Your task to perform on an android device: Check the weather Image 0: 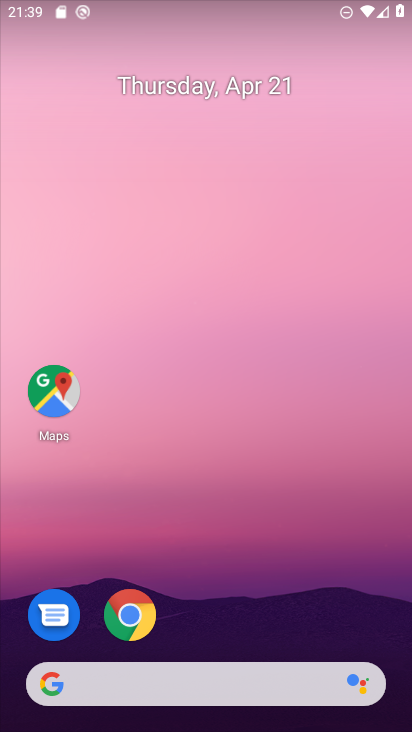
Step 0: drag from (188, 455) to (186, 194)
Your task to perform on an android device: Check the weather Image 1: 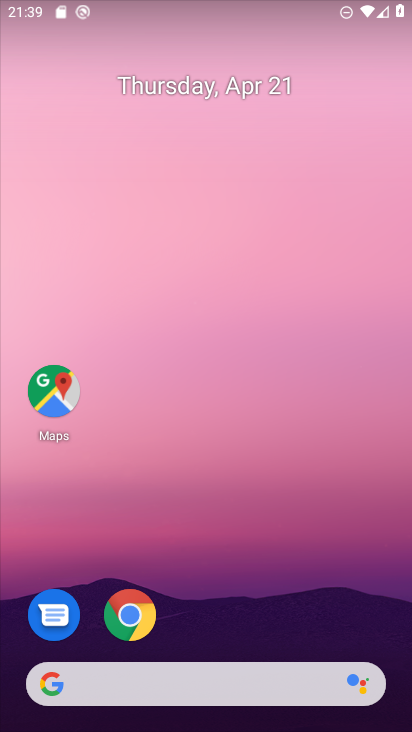
Step 1: drag from (216, 601) to (226, 152)
Your task to perform on an android device: Check the weather Image 2: 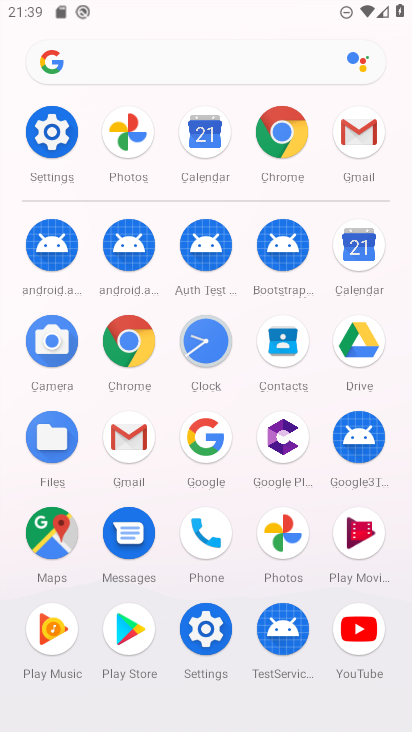
Step 2: click (130, 345)
Your task to perform on an android device: Check the weather Image 3: 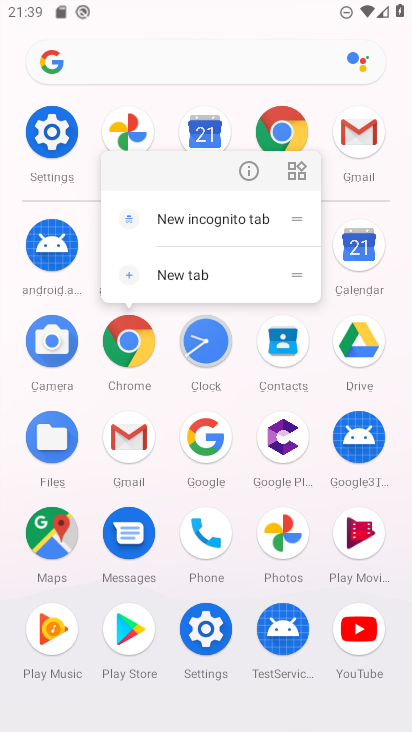
Step 3: click (253, 170)
Your task to perform on an android device: Check the weather Image 4: 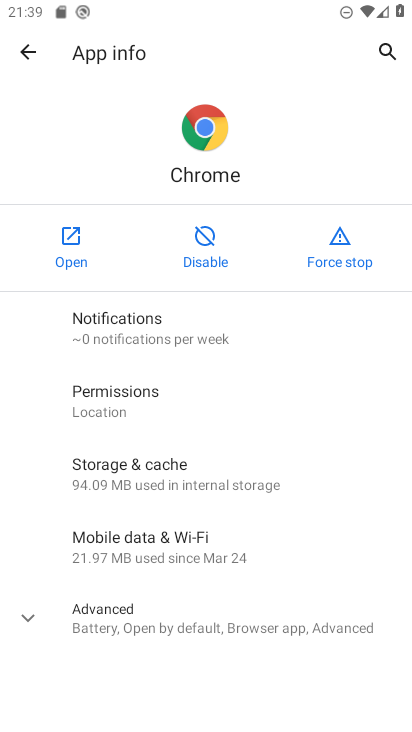
Step 4: click (58, 232)
Your task to perform on an android device: Check the weather Image 5: 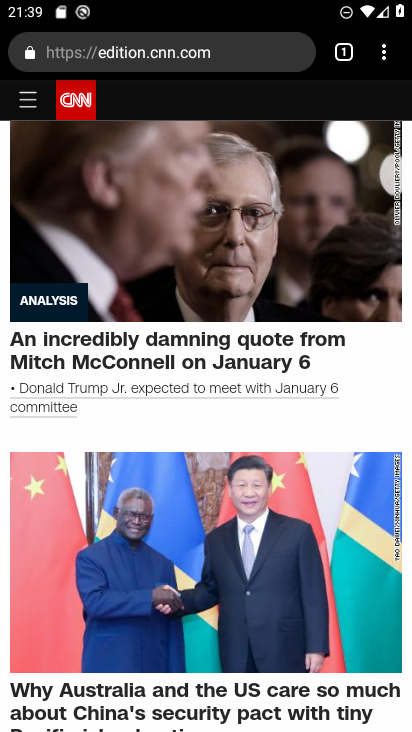
Step 5: drag from (211, 495) to (266, 156)
Your task to perform on an android device: Check the weather Image 6: 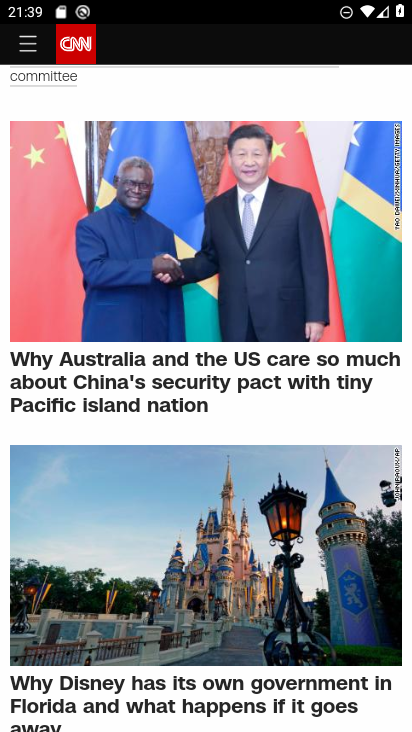
Step 6: drag from (204, 182) to (310, 512)
Your task to perform on an android device: Check the weather Image 7: 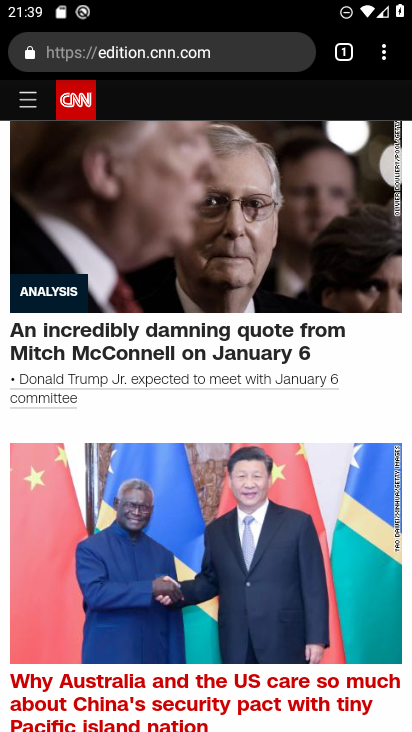
Step 7: click (117, 49)
Your task to perform on an android device: Check the weather Image 8: 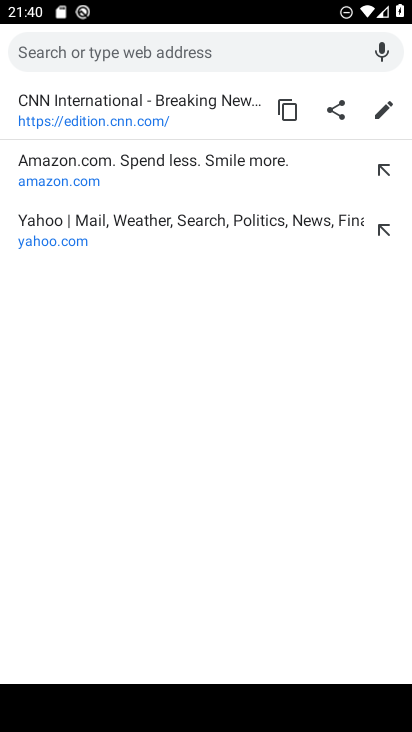
Step 8: type "weather "
Your task to perform on an android device: Check the weather Image 9: 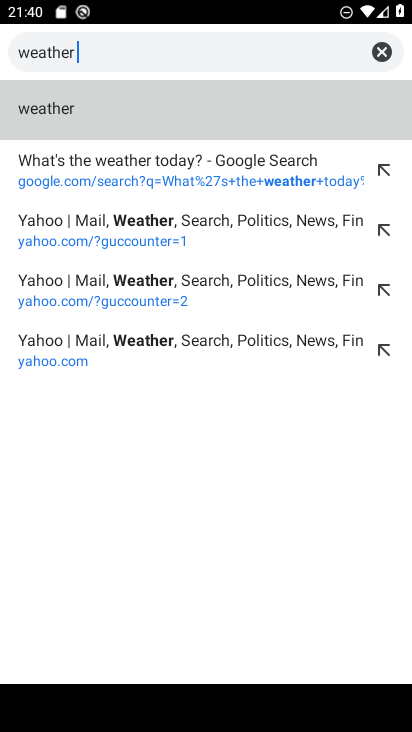
Step 9: click (67, 114)
Your task to perform on an android device: Check the weather Image 10: 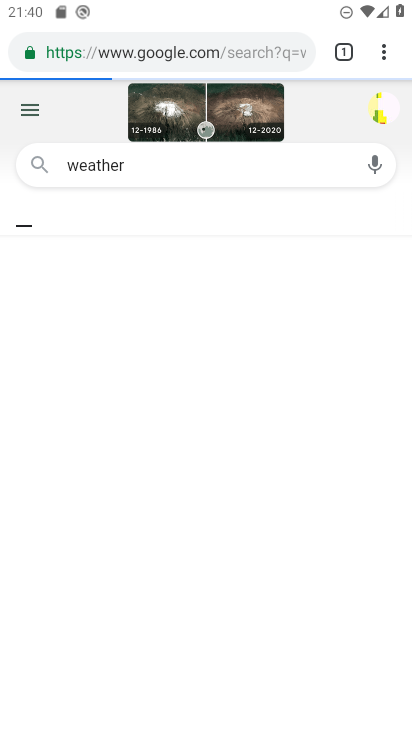
Step 10: task complete